Your task to perform on an android device: Show the shopping cart on target.com. Image 0: 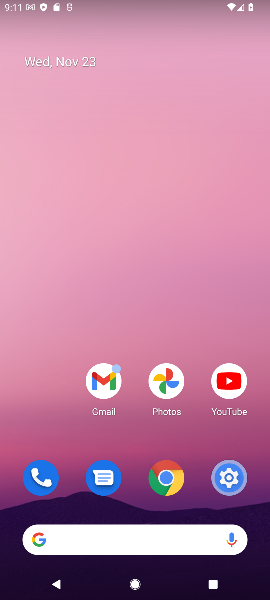
Step 0: click (101, 549)
Your task to perform on an android device: Show the shopping cart on target.com. Image 1: 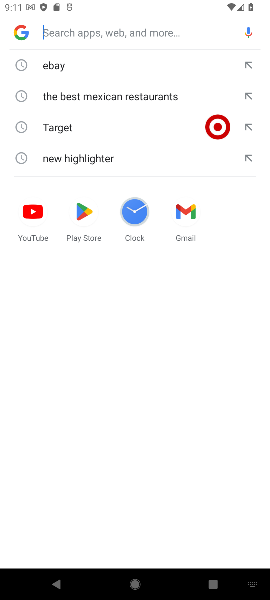
Step 1: type "target.com"
Your task to perform on an android device: Show the shopping cart on target.com. Image 2: 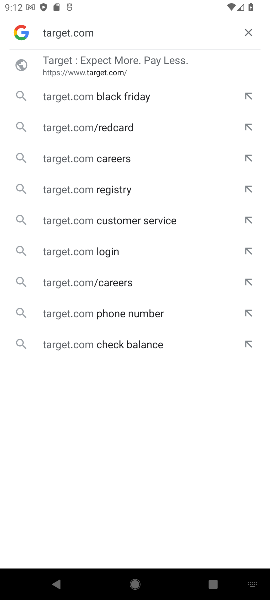
Step 2: click (145, 63)
Your task to perform on an android device: Show the shopping cart on target.com. Image 3: 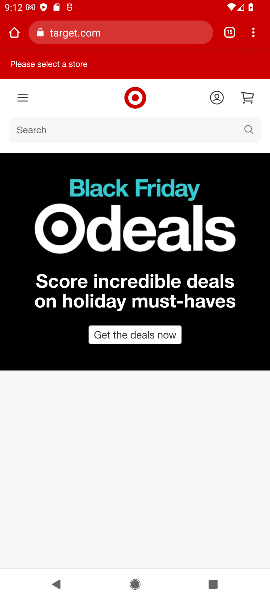
Step 3: task complete